Your task to perform on an android device: turn pop-ups off in chrome Image 0: 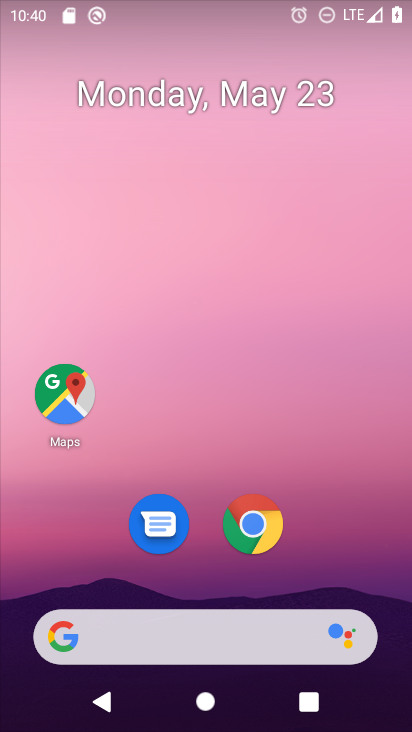
Step 0: click (257, 512)
Your task to perform on an android device: turn pop-ups off in chrome Image 1: 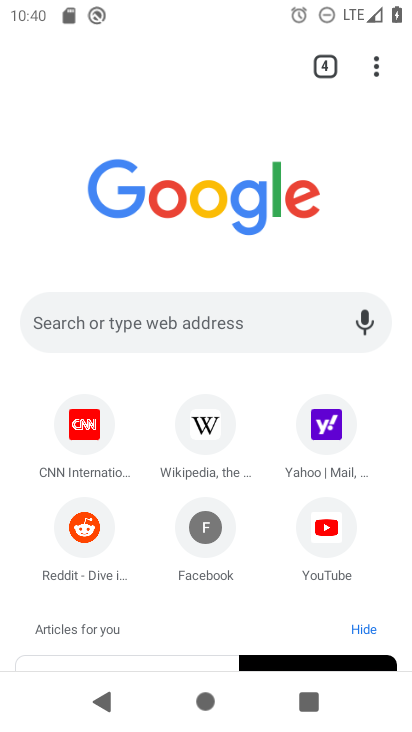
Step 1: click (374, 62)
Your task to perform on an android device: turn pop-ups off in chrome Image 2: 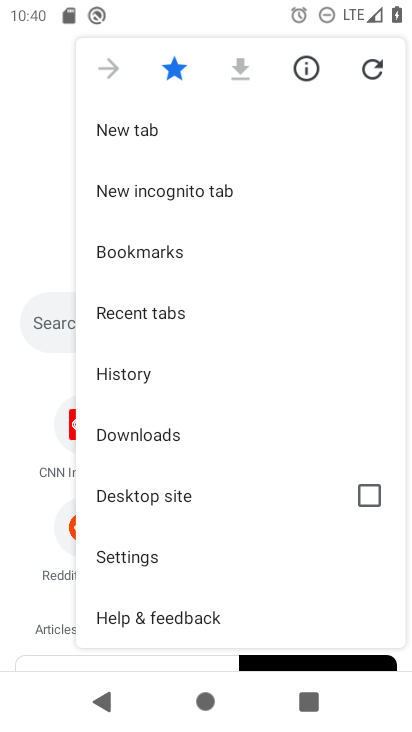
Step 2: click (186, 561)
Your task to perform on an android device: turn pop-ups off in chrome Image 3: 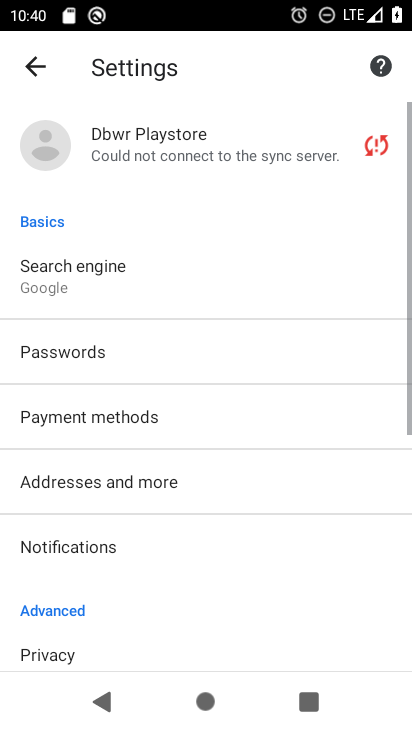
Step 3: drag from (186, 542) to (204, 303)
Your task to perform on an android device: turn pop-ups off in chrome Image 4: 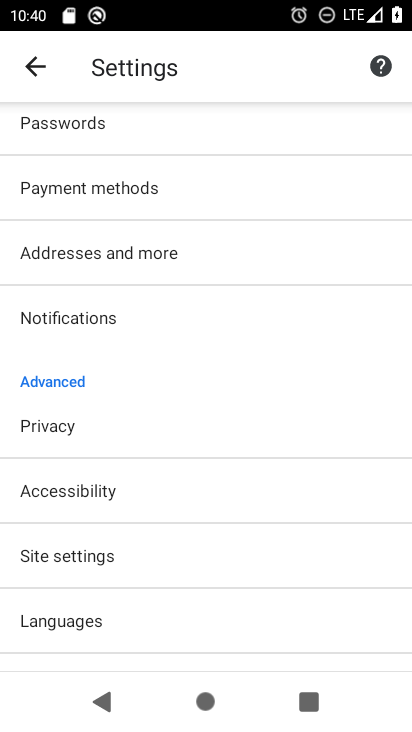
Step 4: click (136, 543)
Your task to perform on an android device: turn pop-ups off in chrome Image 5: 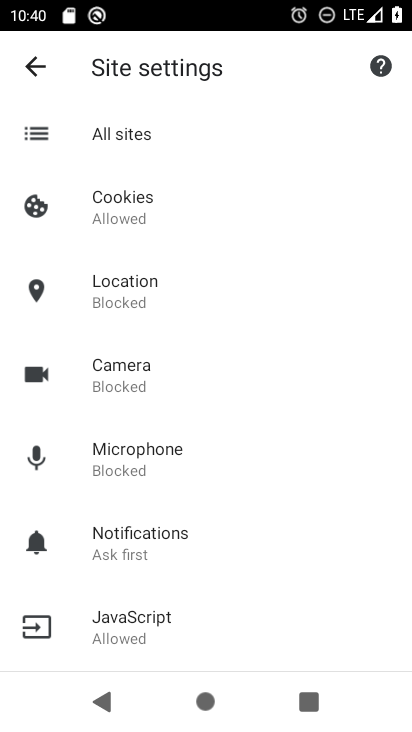
Step 5: drag from (191, 486) to (187, 285)
Your task to perform on an android device: turn pop-ups off in chrome Image 6: 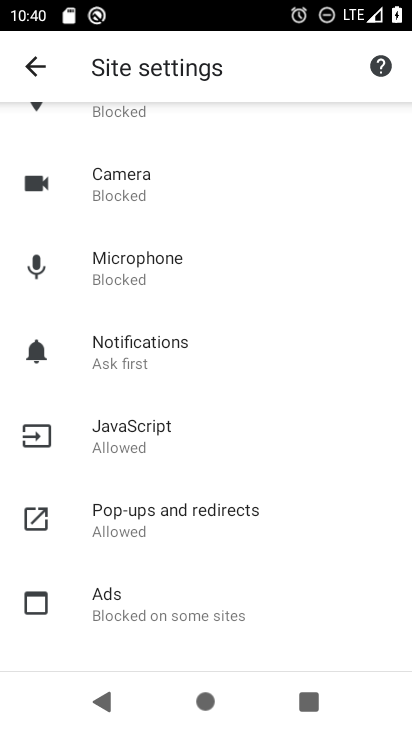
Step 6: click (191, 526)
Your task to perform on an android device: turn pop-ups off in chrome Image 7: 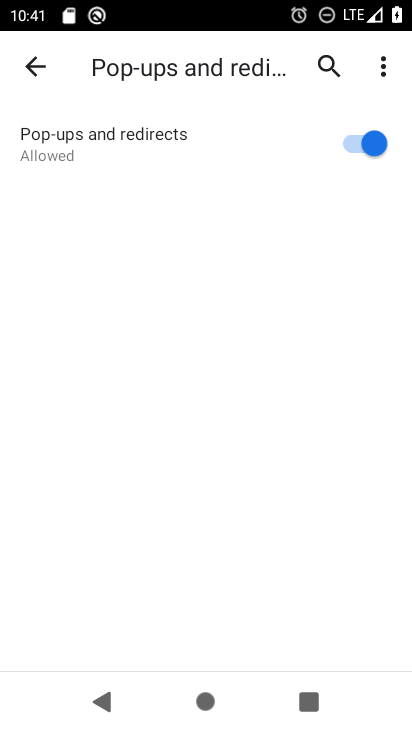
Step 7: click (358, 127)
Your task to perform on an android device: turn pop-ups off in chrome Image 8: 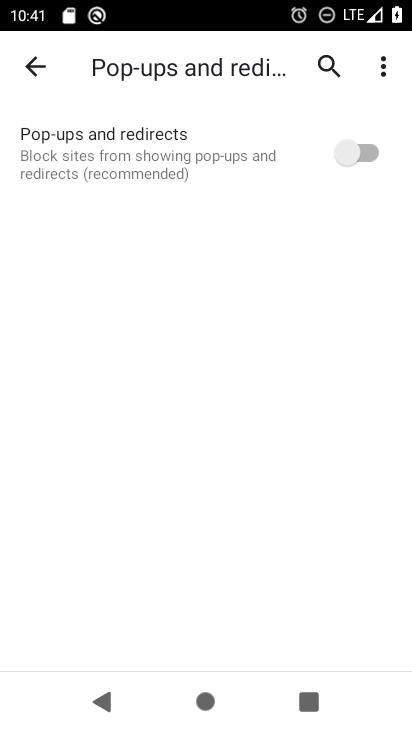
Step 8: task complete